Your task to perform on an android device: What is the recent news? Image 0: 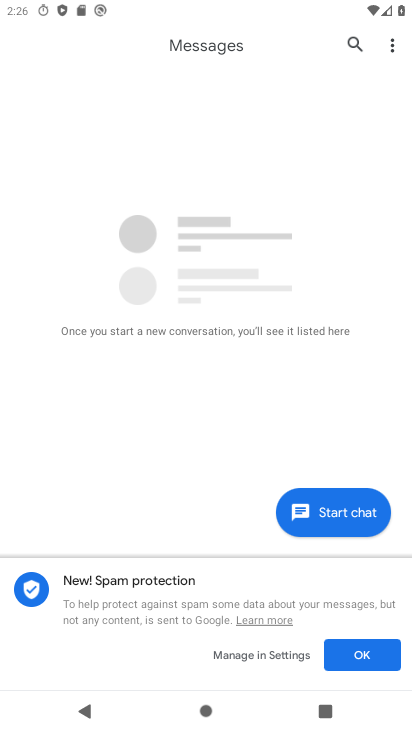
Step 0: press home button
Your task to perform on an android device: What is the recent news? Image 1: 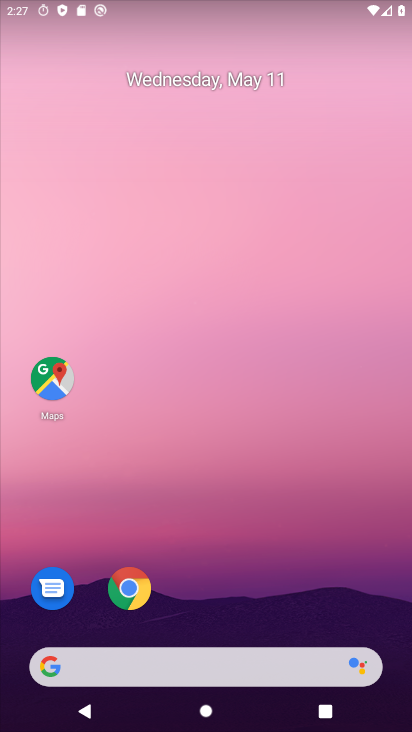
Step 1: click (129, 605)
Your task to perform on an android device: What is the recent news? Image 2: 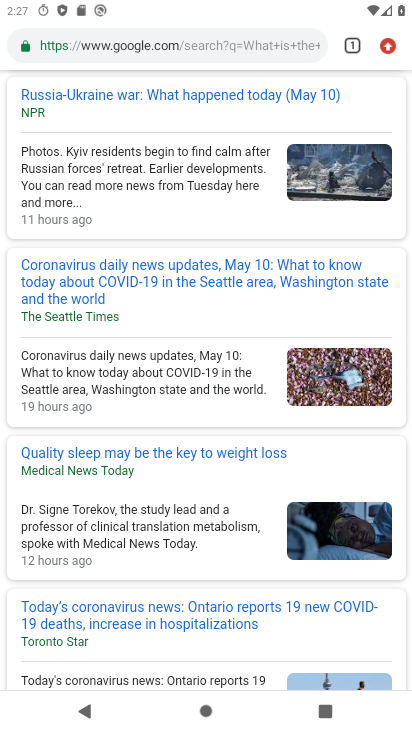
Step 2: drag from (384, 38) to (243, 142)
Your task to perform on an android device: What is the recent news? Image 3: 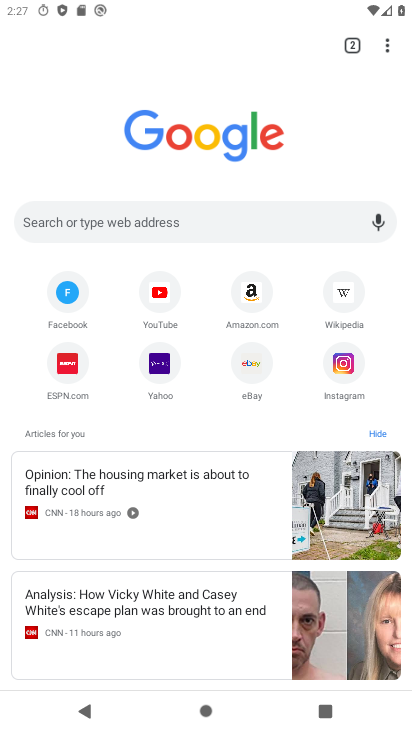
Step 3: click (189, 224)
Your task to perform on an android device: What is the recent news? Image 4: 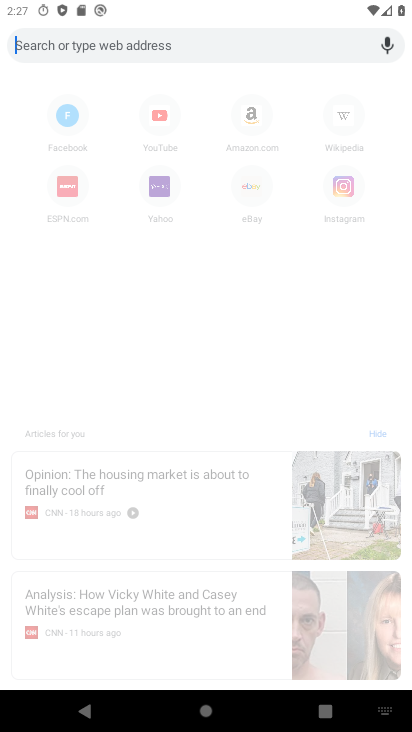
Step 4: type "What is the recent news?"
Your task to perform on an android device: What is the recent news? Image 5: 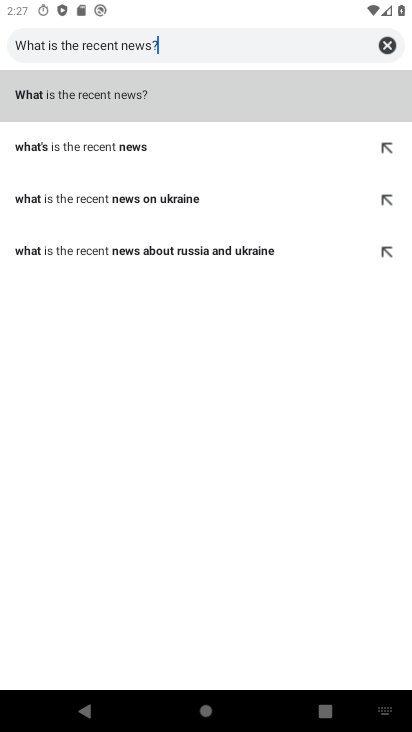
Step 5: click (98, 86)
Your task to perform on an android device: What is the recent news? Image 6: 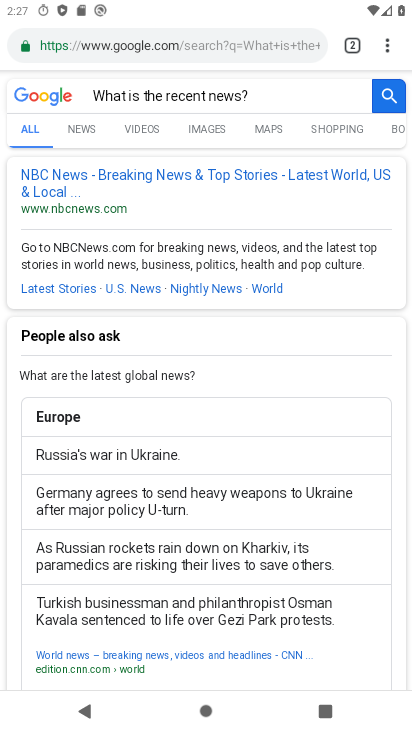
Step 6: click (78, 128)
Your task to perform on an android device: What is the recent news? Image 7: 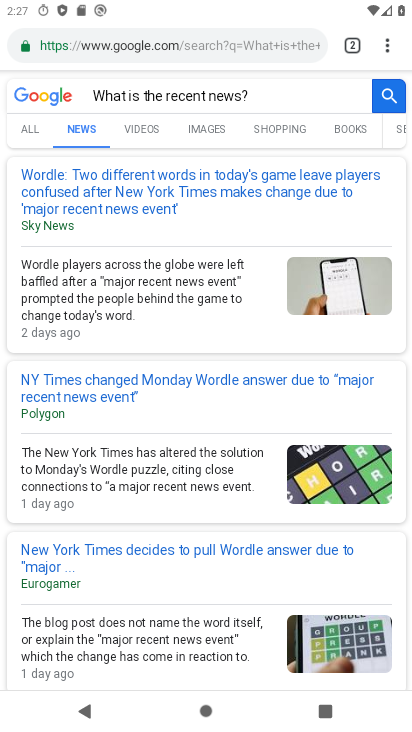
Step 7: task complete